Your task to perform on an android device: Open accessibility settings Image 0: 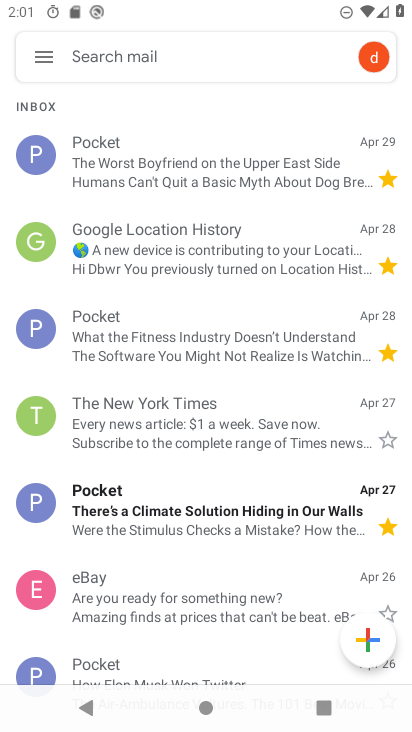
Step 0: press home button
Your task to perform on an android device: Open accessibility settings Image 1: 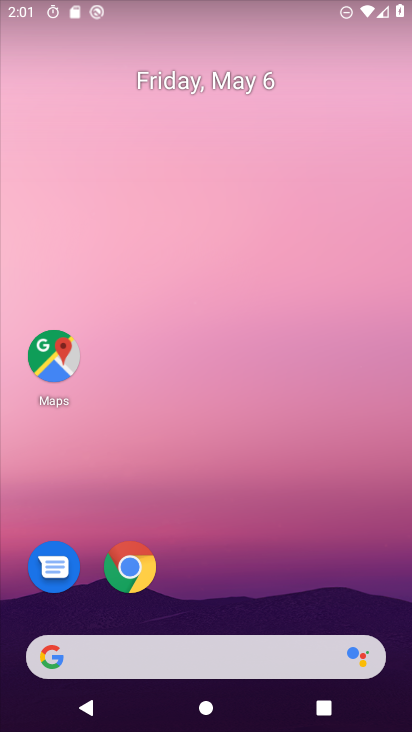
Step 1: drag from (291, 676) to (244, 331)
Your task to perform on an android device: Open accessibility settings Image 2: 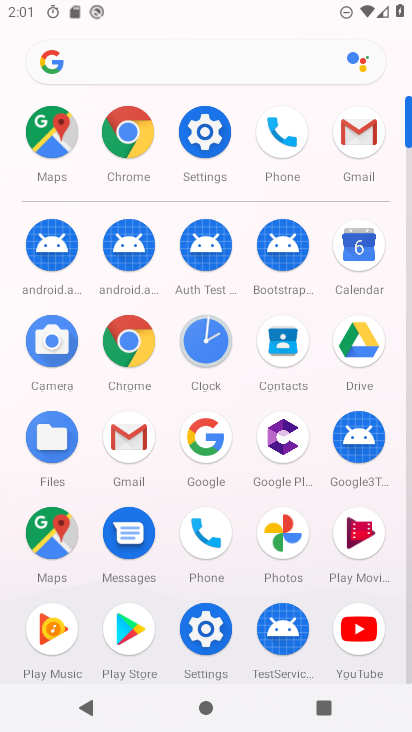
Step 2: click (205, 137)
Your task to perform on an android device: Open accessibility settings Image 3: 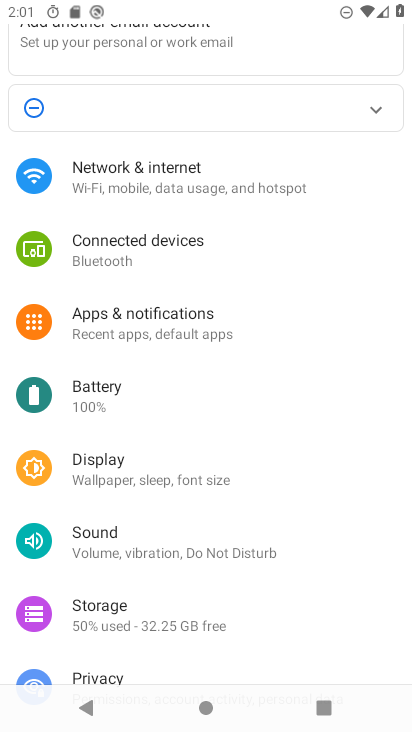
Step 3: drag from (197, 241) to (216, 386)
Your task to perform on an android device: Open accessibility settings Image 4: 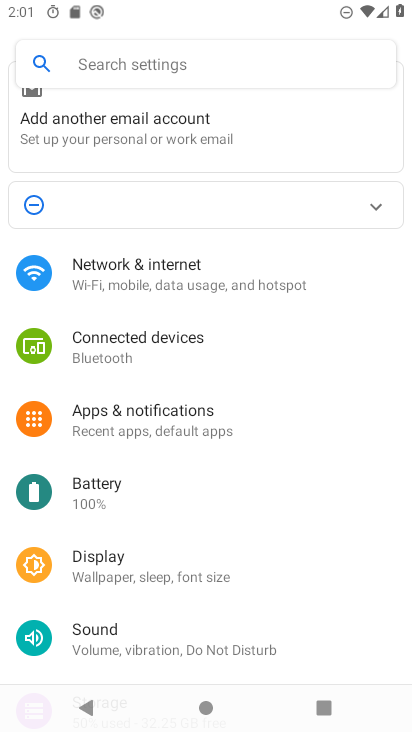
Step 4: click (112, 68)
Your task to perform on an android device: Open accessibility settings Image 5: 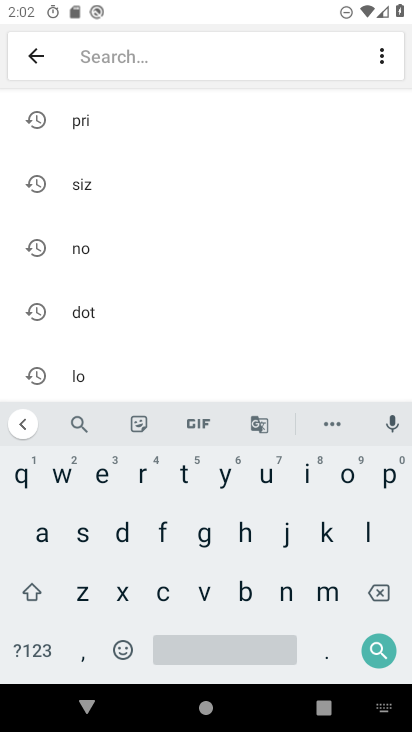
Step 5: click (49, 540)
Your task to perform on an android device: Open accessibility settings Image 6: 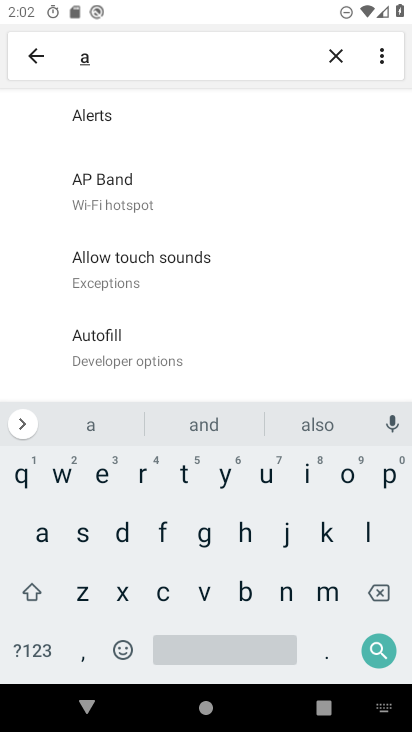
Step 6: click (160, 596)
Your task to perform on an android device: Open accessibility settings Image 7: 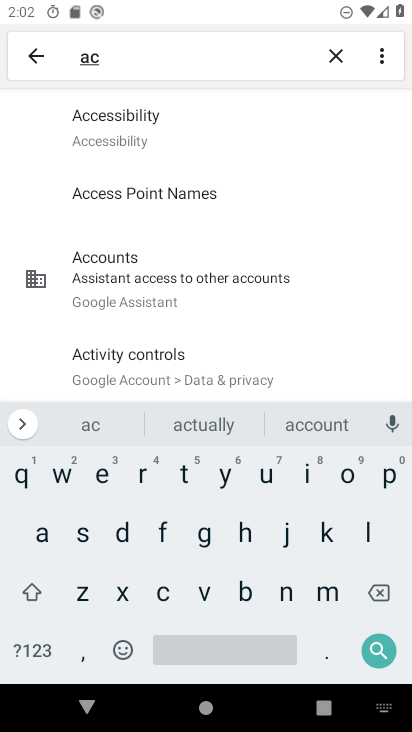
Step 7: click (178, 129)
Your task to perform on an android device: Open accessibility settings Image 8: 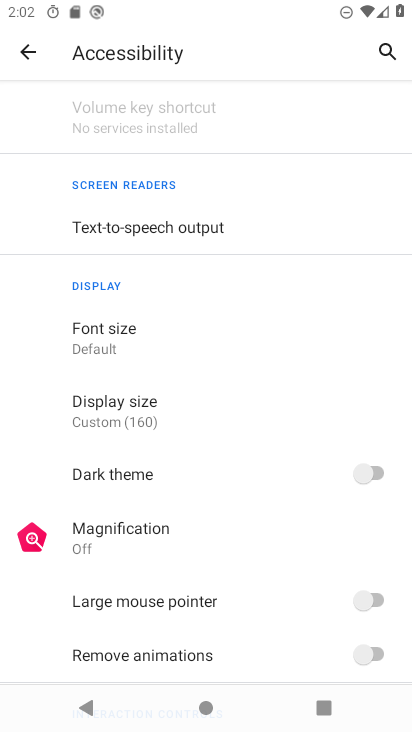
Step 8: task complete